Your task to perform on an android device: turn off translation in the chrome app Image 0: 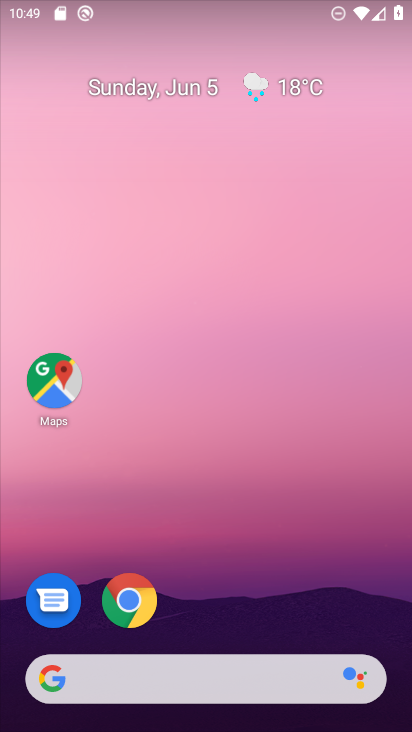
Step 0: click (134, 590)
Your task to perform on an android device: turn off translation in the chrome app Image 1: 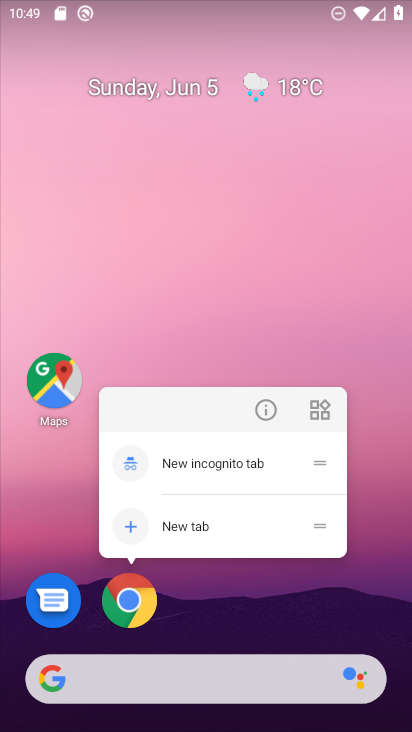
Step 1: click (134, 590)
Your task to perform on an android device: turn off translation in the chrome app Image 2: 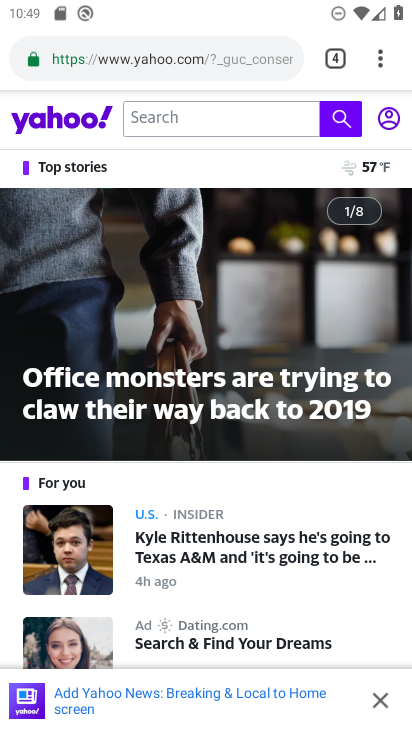
Step 2: drag from (382, 41) to (176, 630)
Your task to perform on an android device: turn off translation in the chrome app Image 3: 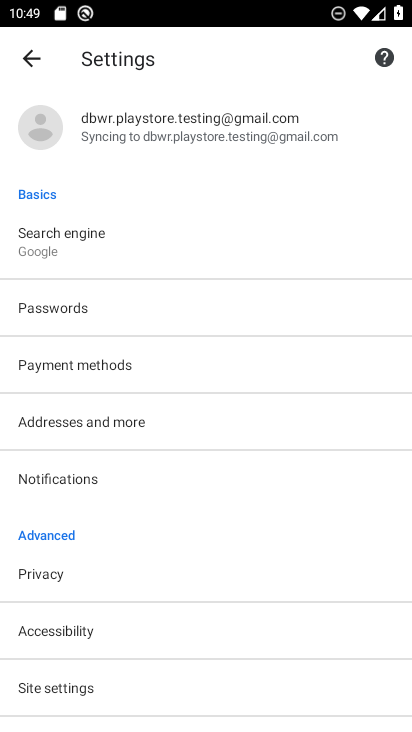
Step 3: drag from (95, 684) to (139, 362)
Your task to perform on an android device: turn off translation in the chrome app Image 4: 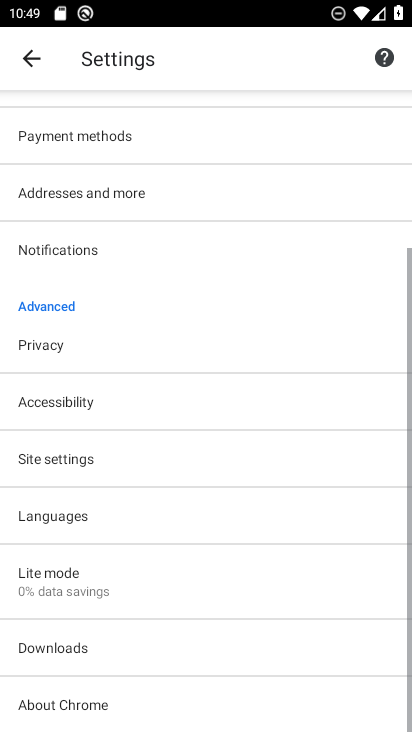
Step 4: click (58, 515)
Your task to perform on an android device: turn off translation in the chrome app Image 5: 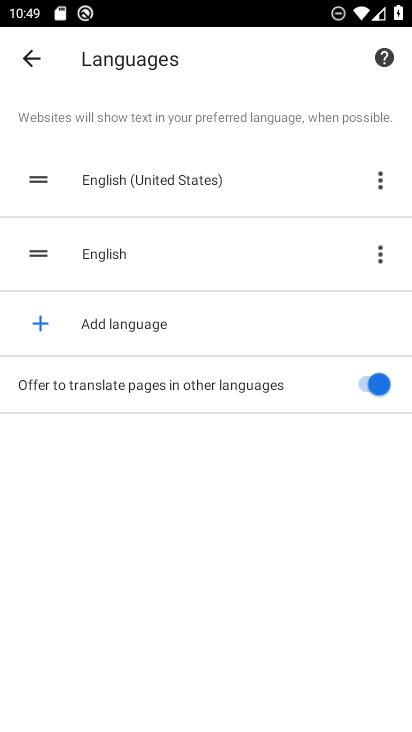
Step 5: click (373, 386)
Your task to perform on an android device: turn off translation in the chrome app Image 6: 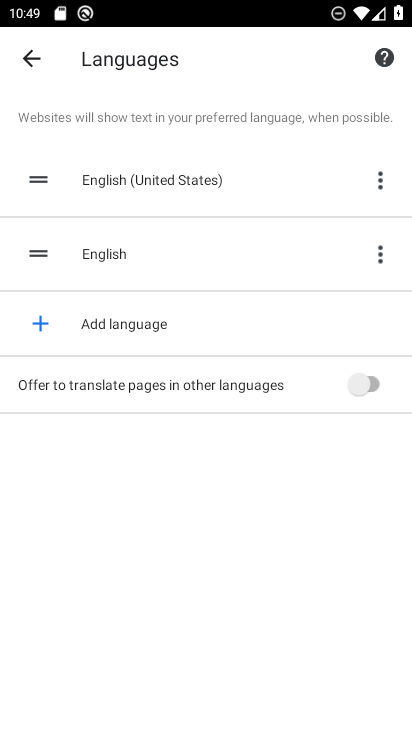
Step 6: task complete